Your task to perform on an android device: Where can I buy a nice beach blanket? Image 0: 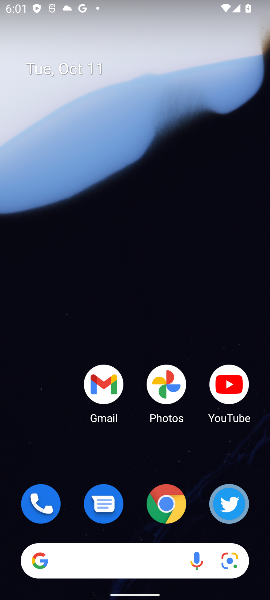
Step 0: click (102, 566)
Your task to perform on an android device: Where can I buy a nice beach blanket? Image 1: 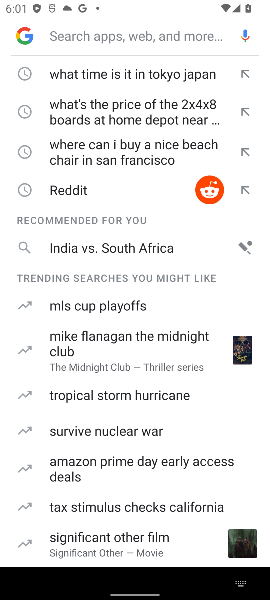
Step 1: click (98, 43)
Your task to perform on an android device: Where can I buy a nice beach blanket? Image 2: 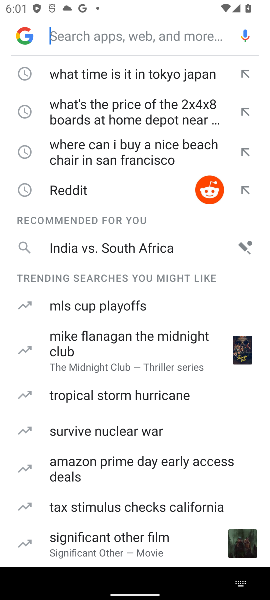
Step 2: type "Where can I buy a nice beach blanket?"
Your task to perform on an android device: Where can I buy a nice beach blanket? Image 3: 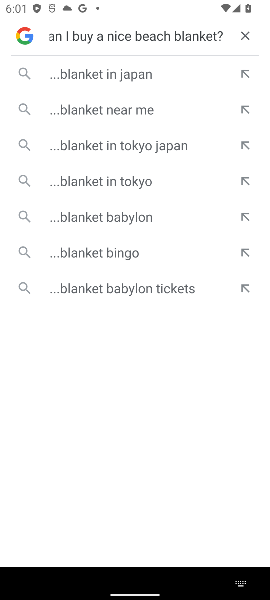
Step 3: click (131, 75)
Your task to perform on an android device: Where can I buy a nice beach blanket? Image 4: 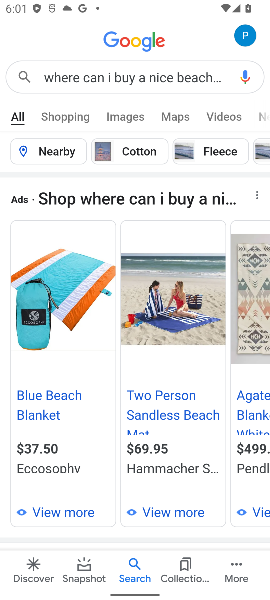
Step 4: task complete